Your task to perform on an android device: refresh tabs in the chrome app Image 0: 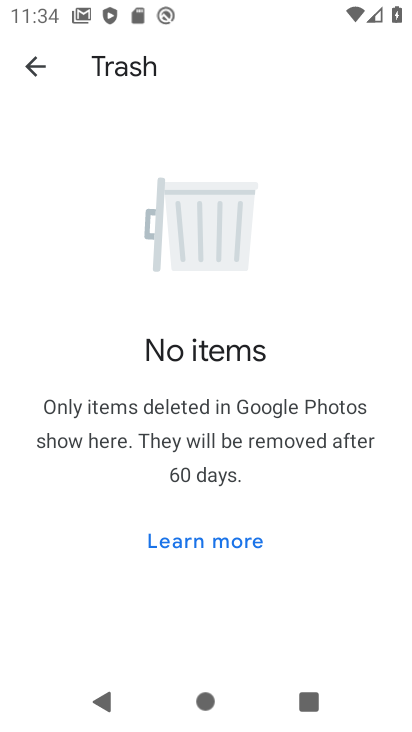
Step 0: press home button
Your task to perform on an android device: refresh tabs in the chrome app Image 1: 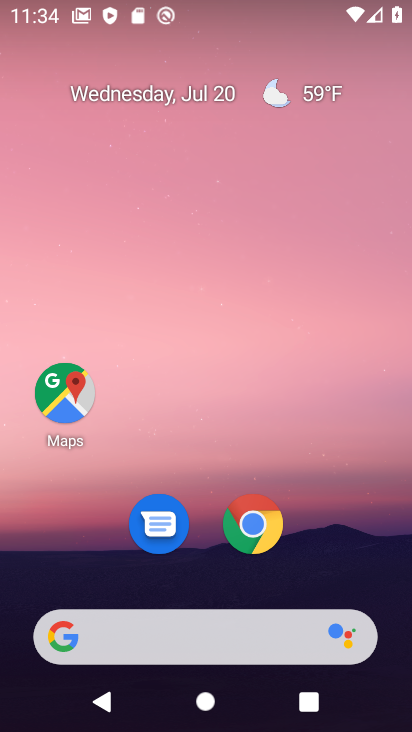
Step 1: click (254, 529)
Your task to perform on an android device: refresh tabs in the chrome app Image 2: 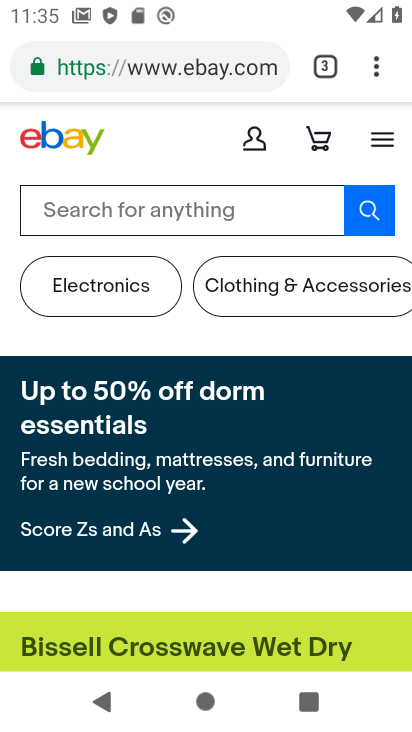
Step 2: click (374, 82)
Your task to perform on an android device: refresh tabs in the chrome app Image 3: 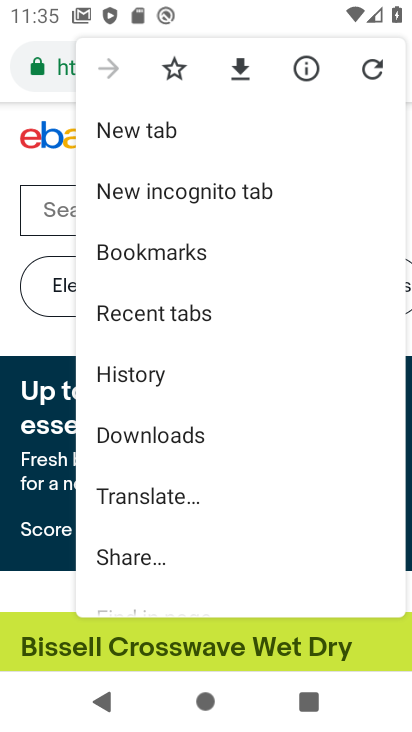
Step 3: click (361, 64)
Your task to perform on an android device: refresh tabs in the chrome app Image 4: 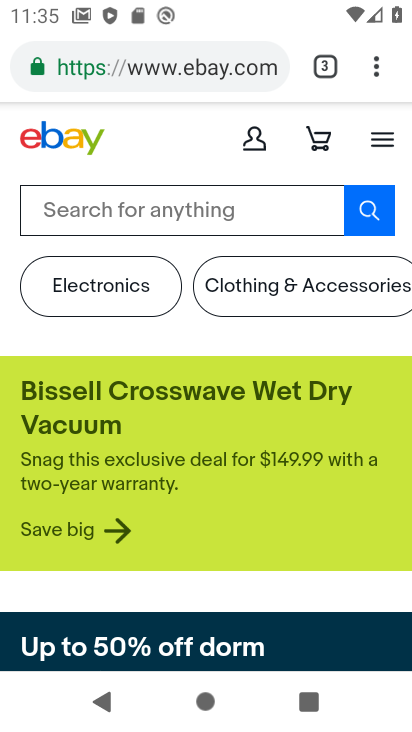
Step 4: task complete